Your task to perform on an android device: change the clock style Image 0: 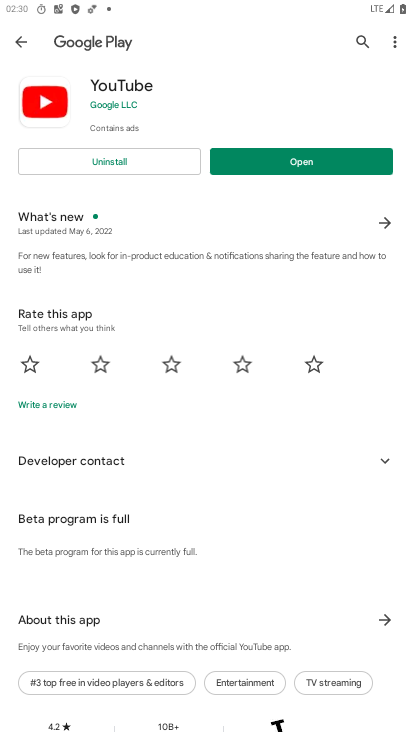
Step 0: press home button
Your task to perform on an android device: change the clock style Image 1: 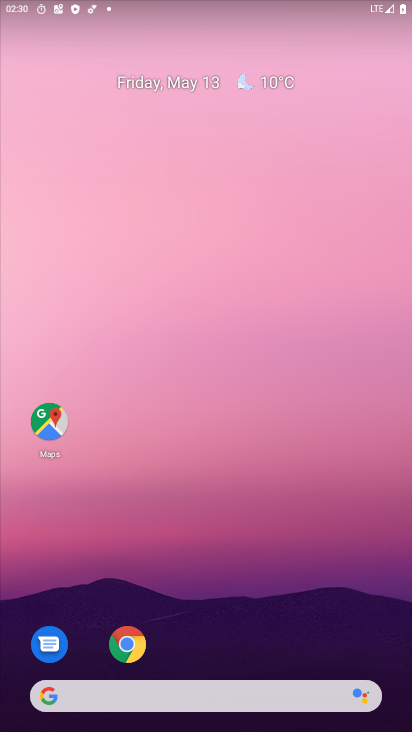
Step 1: drag from (199, 654) to (401, 197)
Your task to perform on an android device: change the clock style Image 2: 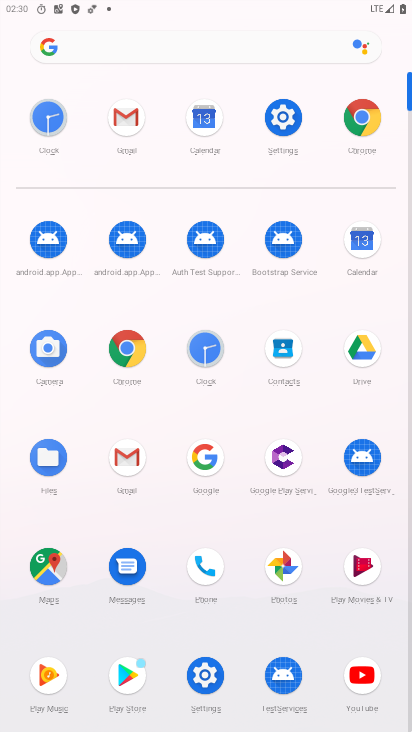
Step 2: click (212, 355)
Your task to perform on an android device: change the clock style Image 3: 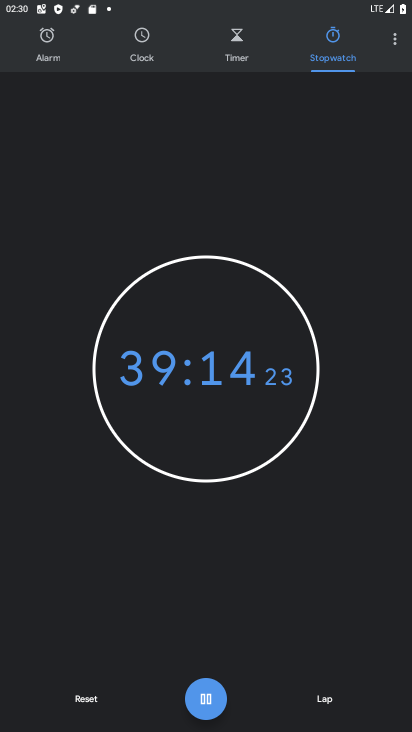
Step 3: click (396, 43)
Your task to perform on an android device: change the clock style Image 4: 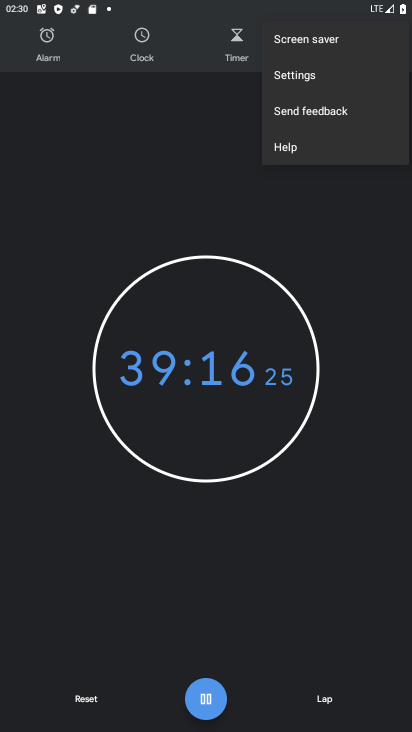
Step 4: click (316, 78)
Your task to perform on an android device: change the clock style Image 5: 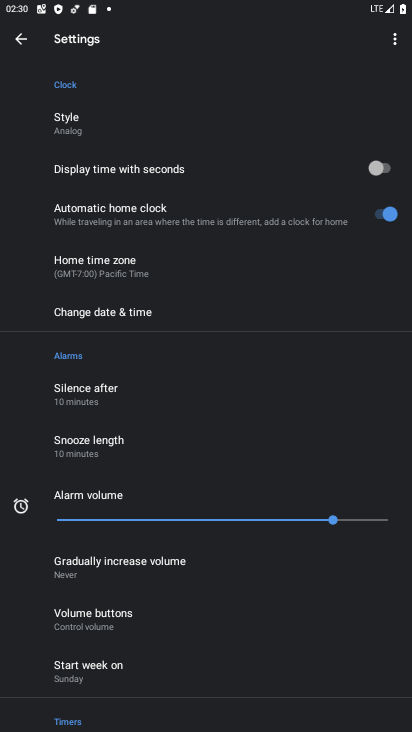
Step 5: drag from (153, 127) to (115, 127)
Your task to perform on an android device: change the clock style Image 6: 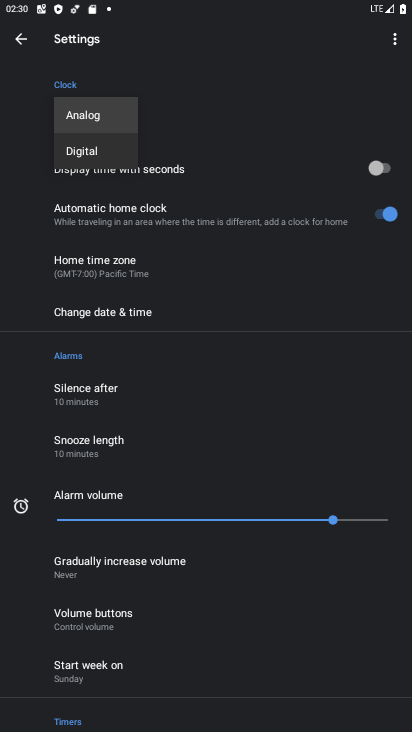
Step 6: click (104, 149)
Your task to perform on an android device: change the clock style Image 7: 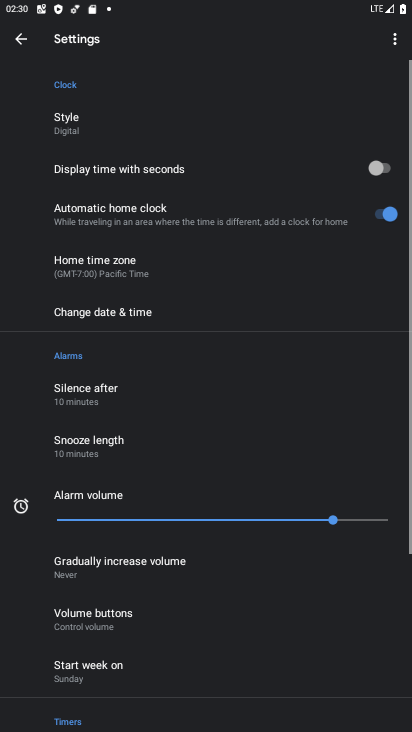
Step 7: task complete